Your task to perform on an android device: find snoozed emails in the gmail app Image 0: 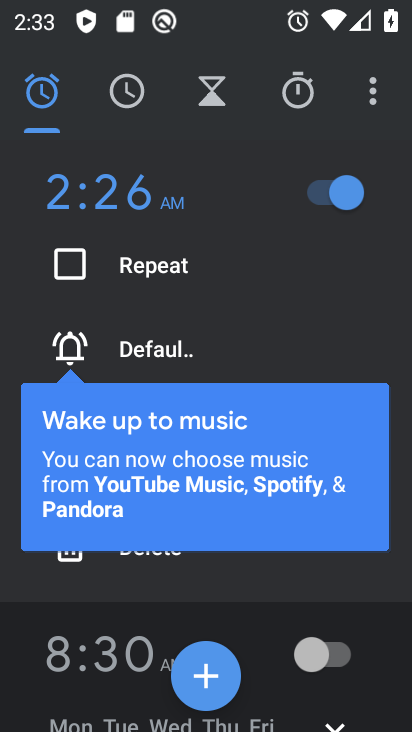
Step 0: press home button
Your task to perform on an android device: find snoozed emails in the gmail app Image 1: 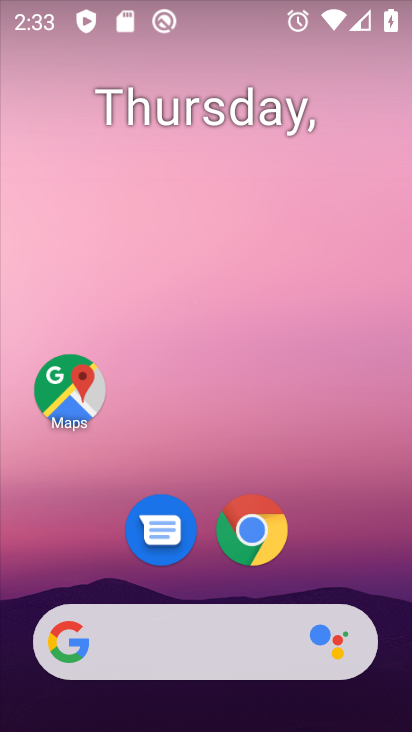
Step 1: drag from (189, 723) to (321, 7)
Your task to perform on an android device: find snoozed emails in the gmail app Image 2: 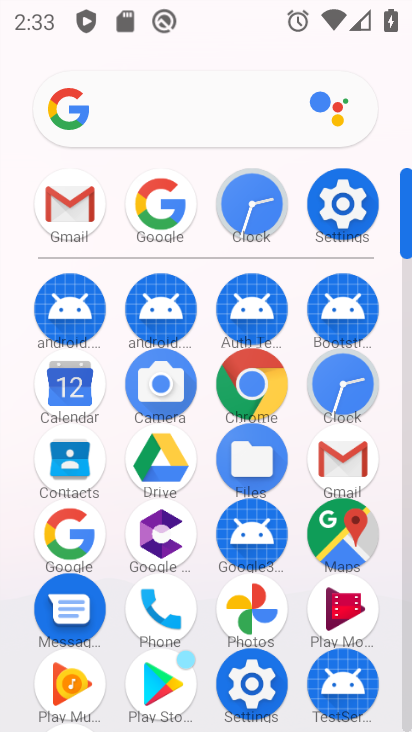
Step 2: click (77, 205)
Your task to perform on an android device: find snoozed emails in the gmail app Image 3: 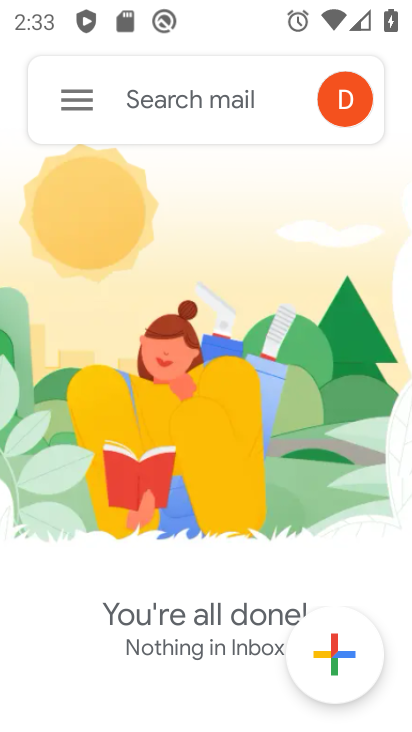
Step 3: click (99, 92)
Your task to perform on an android device: find snoozed emails in the gmail app Image 4: 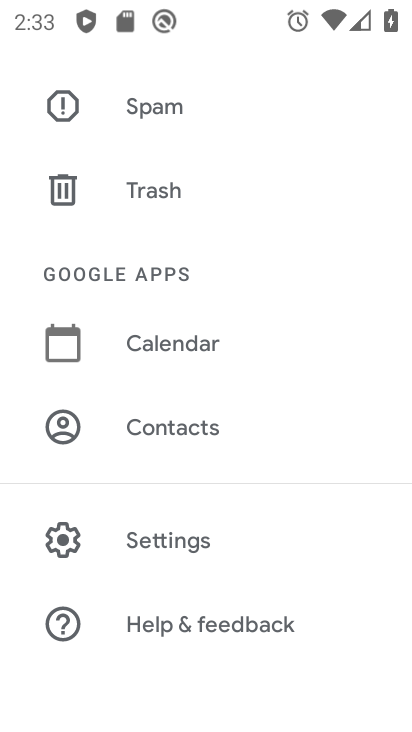
Step 4: drag from (297, 245) to (220, 703)
Your task to perform on an android device: find snoozed emails in the gmail app Image 5: 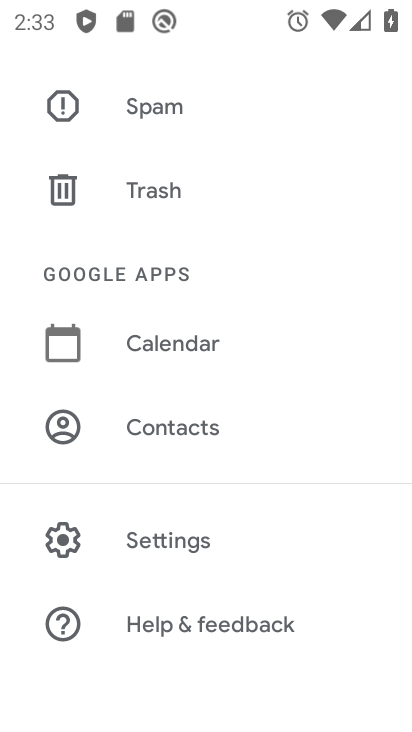
Step 5: drag from (213, 162) to (203, 731)
Your task to perform on an android device: find snoozed emails in the gmail app Image 6: 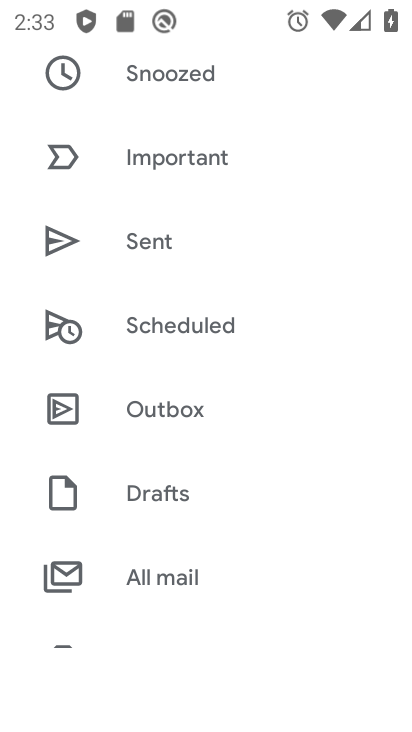
Step 6: drag from (261, 106) to (220, 715)
Your task to perform on an android device: find snoozed emails in the gmail app Image 7: 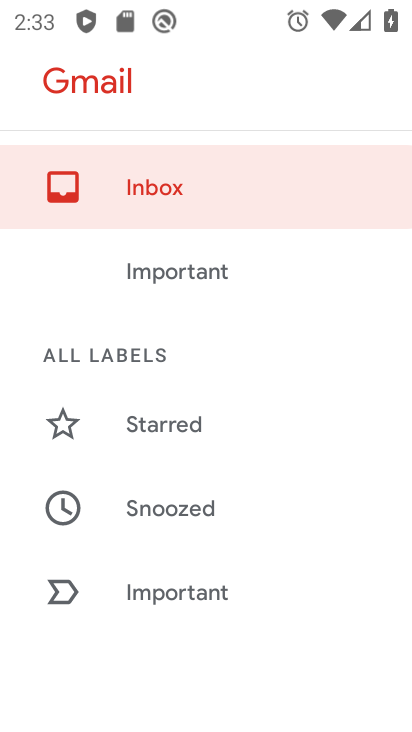
Step 7: click (164, 520)
Your task to perform on an android device: find snoozed emails in the gmail app Image 8: 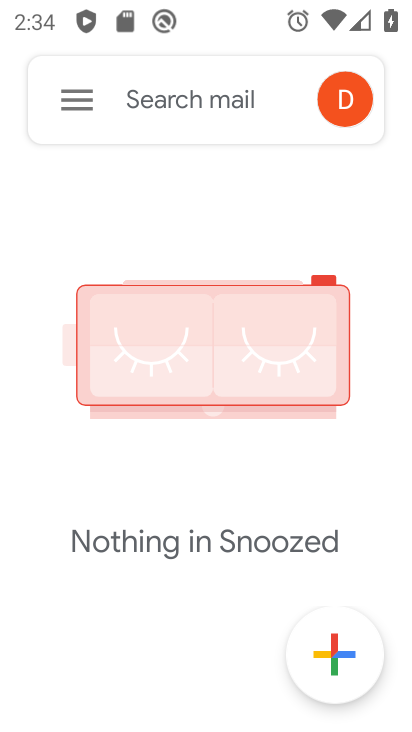
Step 8: task complete